Your task to perform on an android device: Add "macbook pro" to the cart on bestbuy, then select checkout. Image 0: 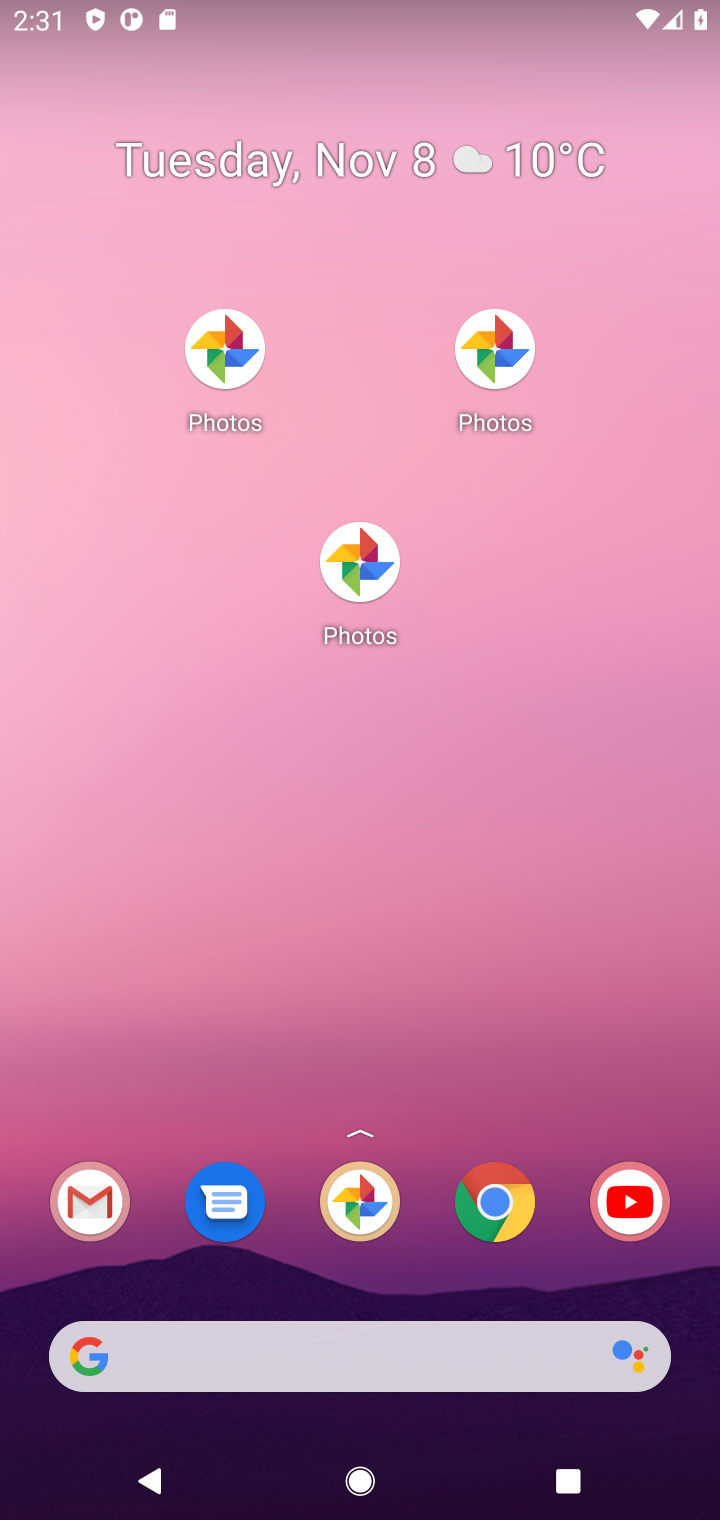
Step 0: drag from (373, 1271) to (447, 387)
Your task to perform on an android device: Add "macbook pro" to the cart on bestbuy, then select checkout. Image 1: 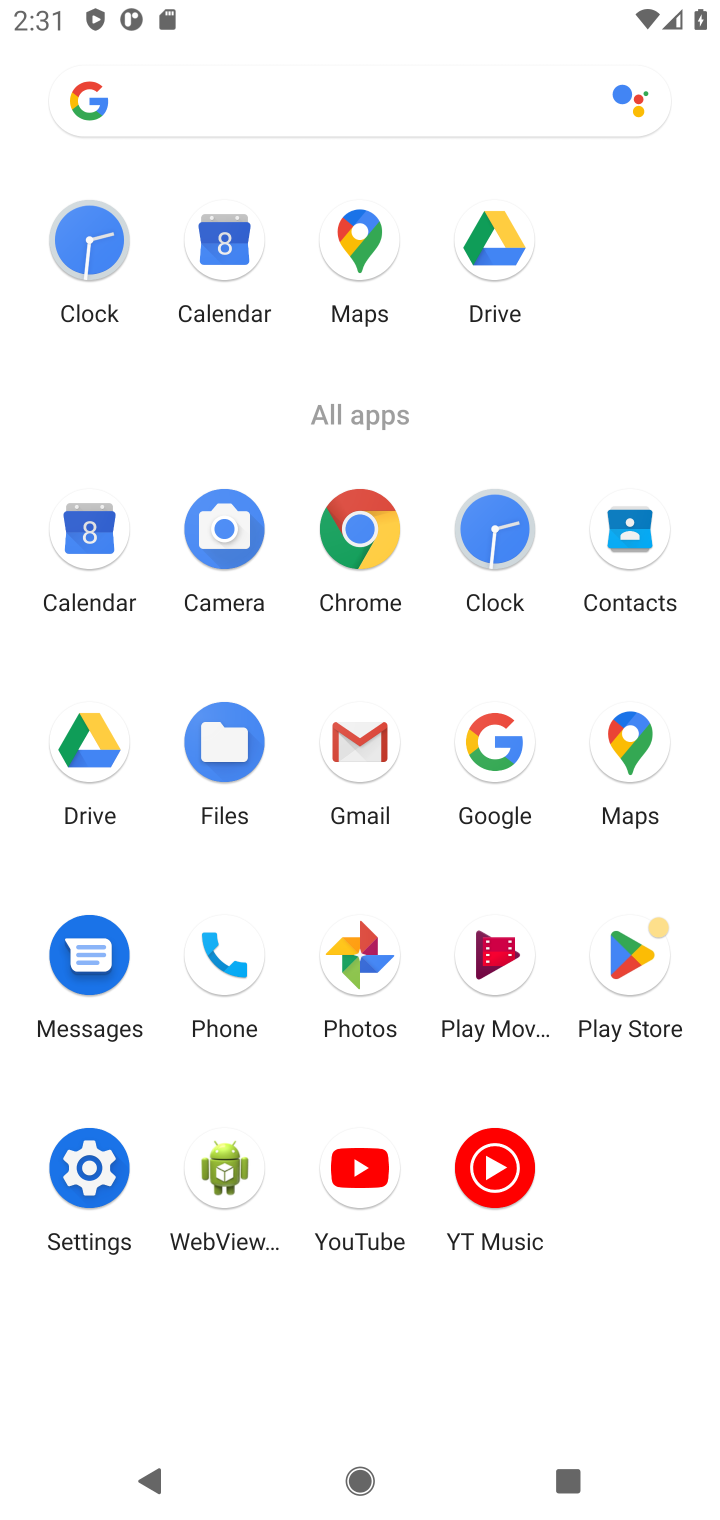
Step 1: click (501, 770)
Your task to perform on an android device: Add "macbook pro" to the cart on bestbuy, then select checkout. Image 2: 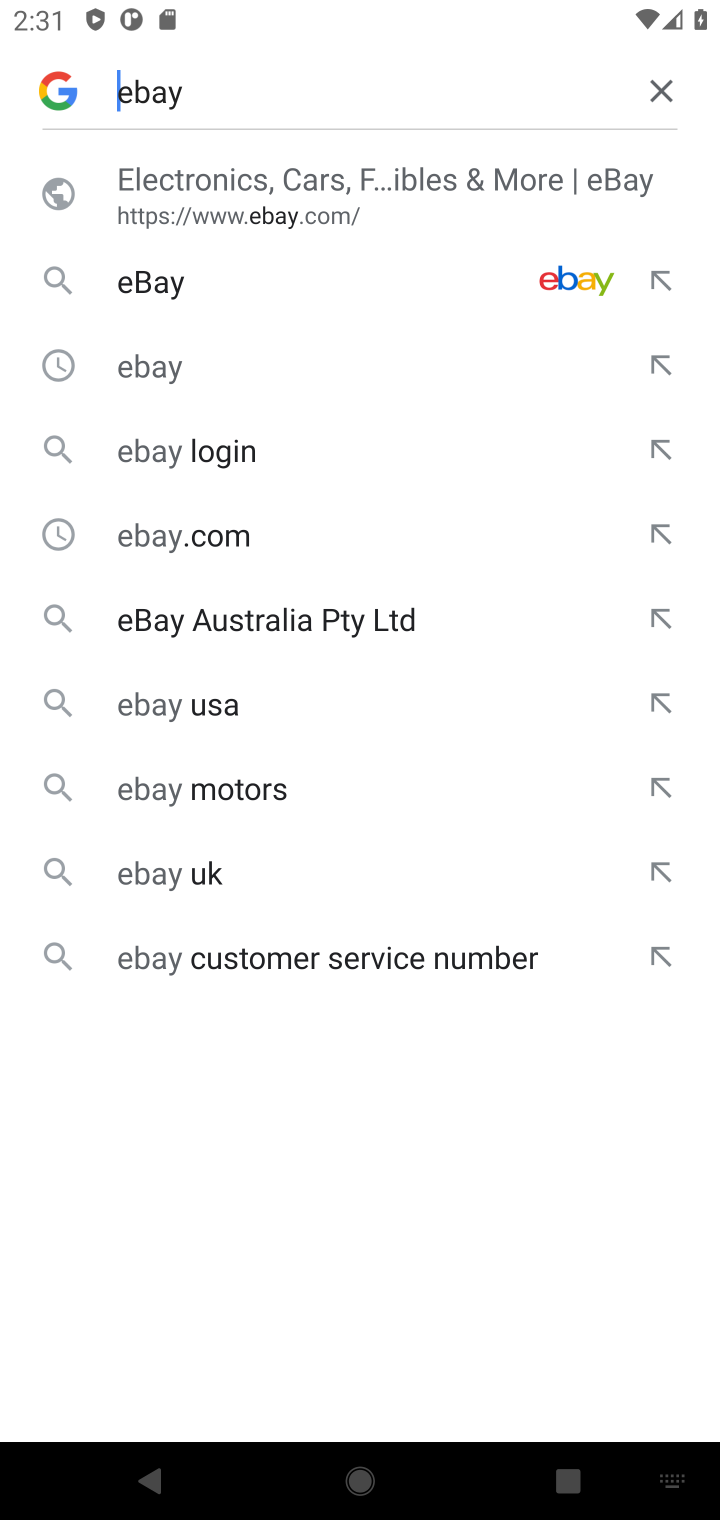
Step 2: click (663, 89)
Your task to perform on an android device: Add "macbook pro" to the cart on bestbuy, then select checkout. Image 3: 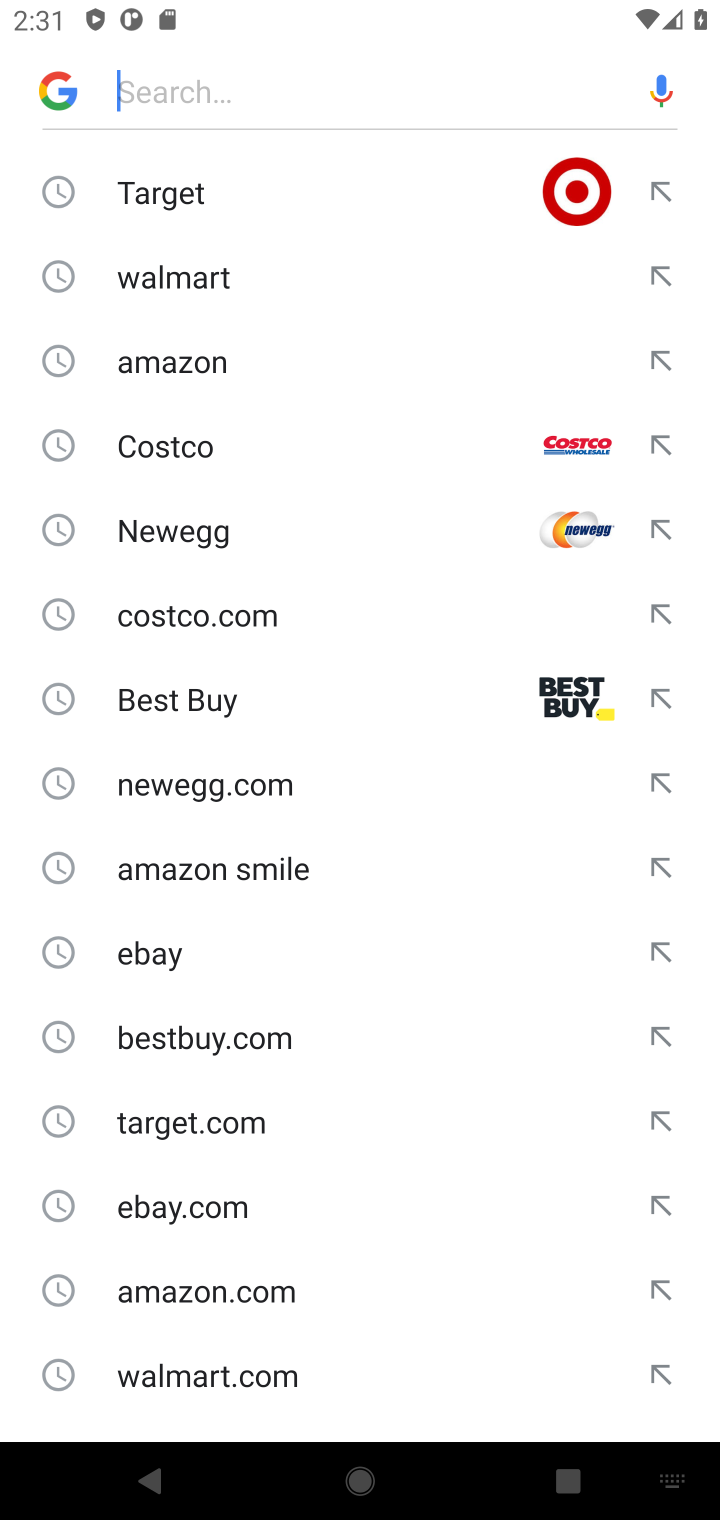
Step 3: type "bestbuy"
Your task to perform on an android device: Add "macbook pro" to the cart on bestbuy, then select checkout. Image 4: 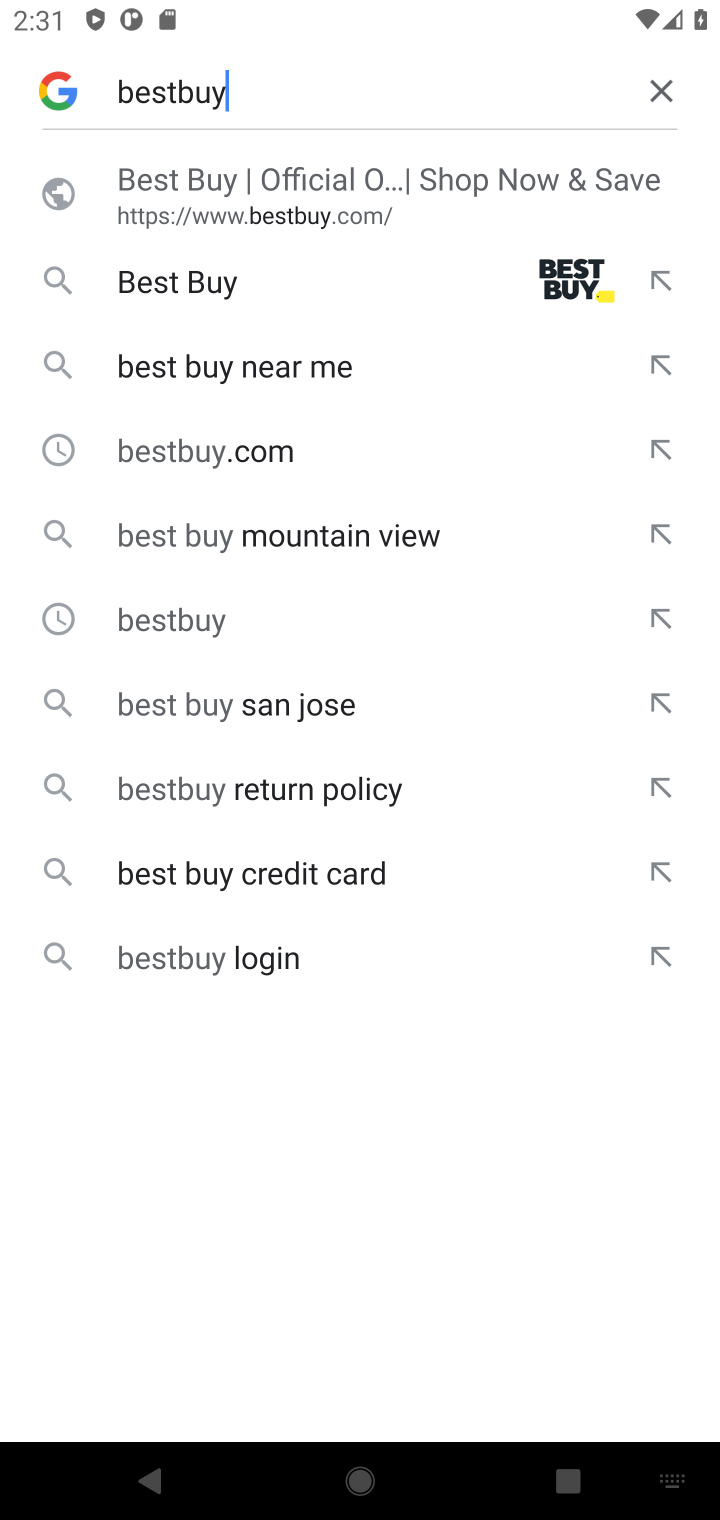
Step 4: click (261, 202)
Your task to perform on an android device: Add "macbook pro" to the cart on bestbuy, then select checkout. Image 5: 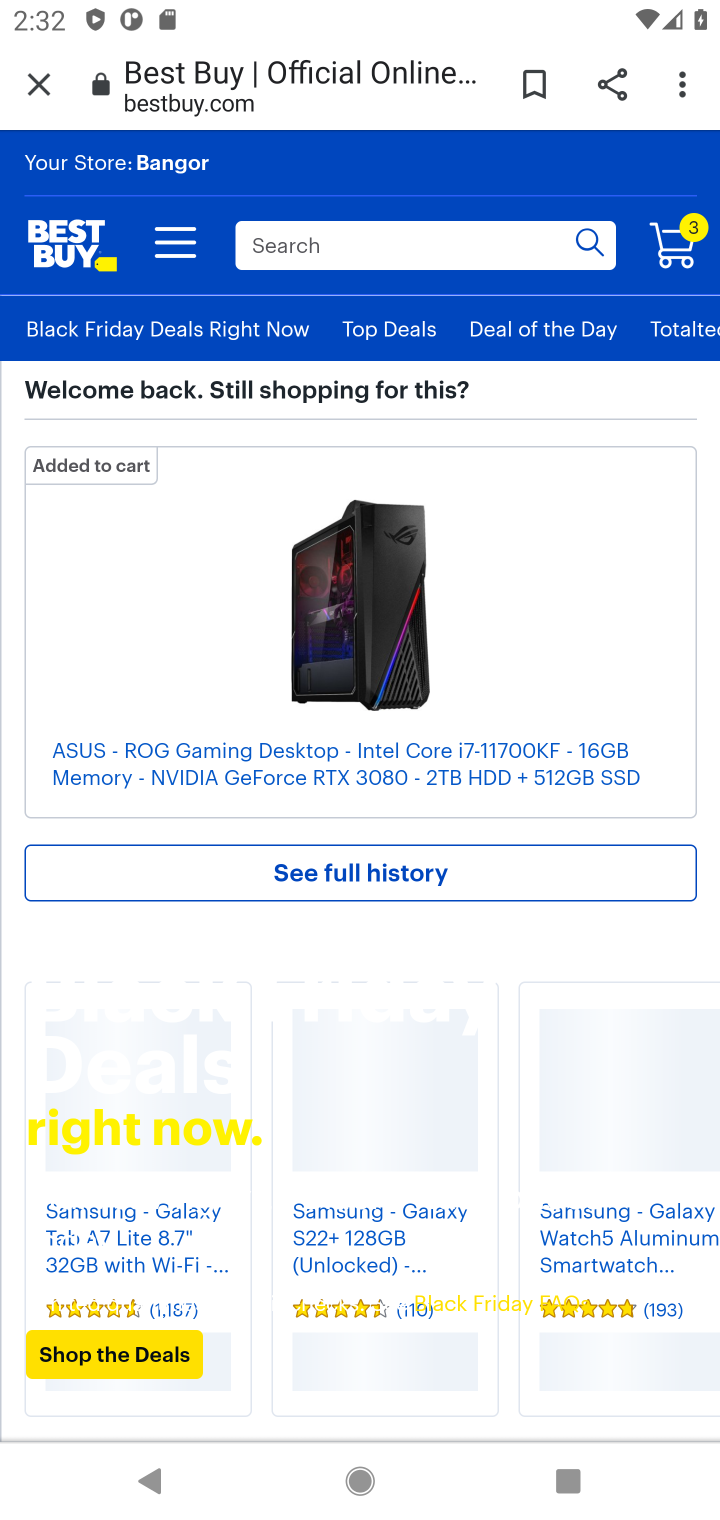
Step 5: click (384, 235)
Your task to perform on an android device: Add "macbook pro" to the cart on bestbuy, then select checkout. Image 6: 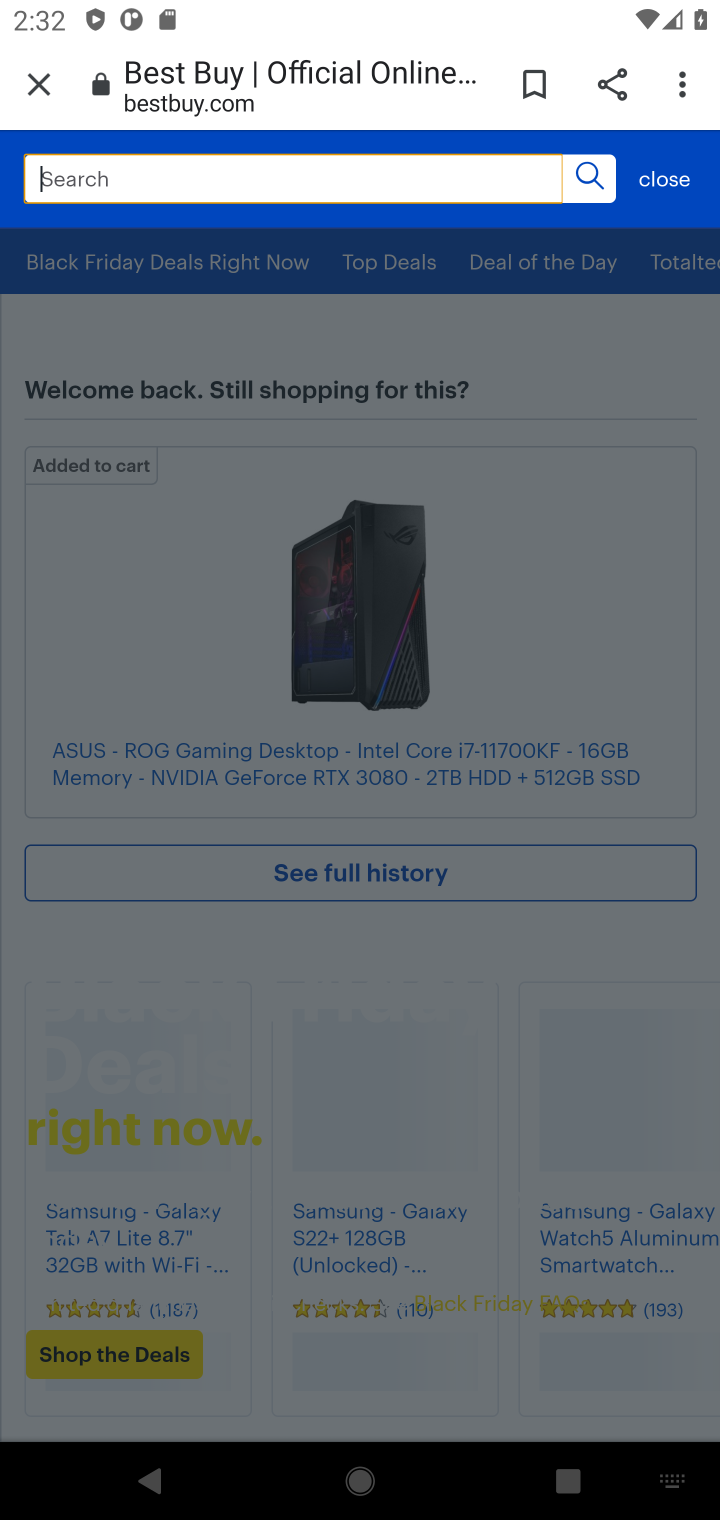
Step 6: type "macbook pro"
Your task to perform on an android device: Add "macbook pro" to the cart on bestbuy, then select checkout. Image 7: 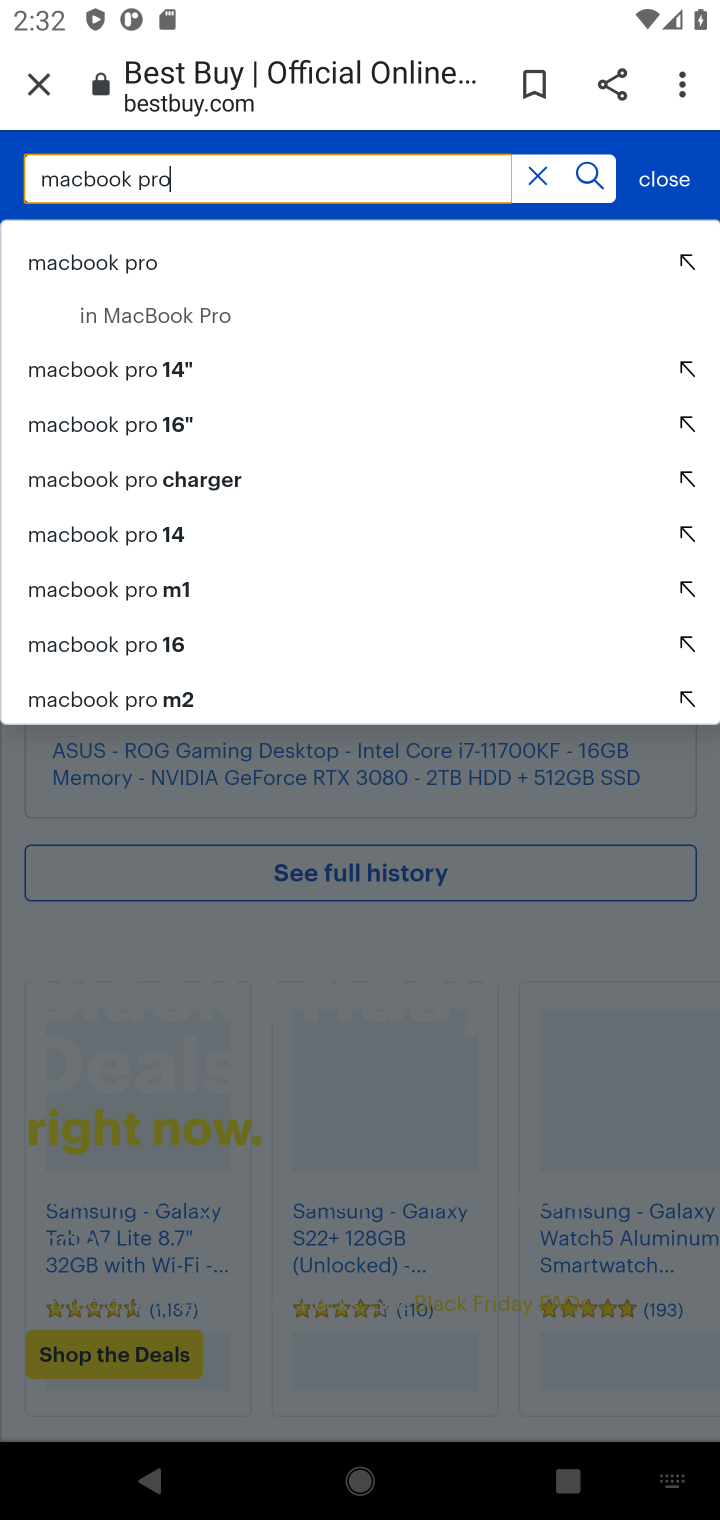
Step 7: click (236, 262)
Your task to perform on an android device: Add "macbook pro" to the cart on bestbuy, then select checkout. Image 8: 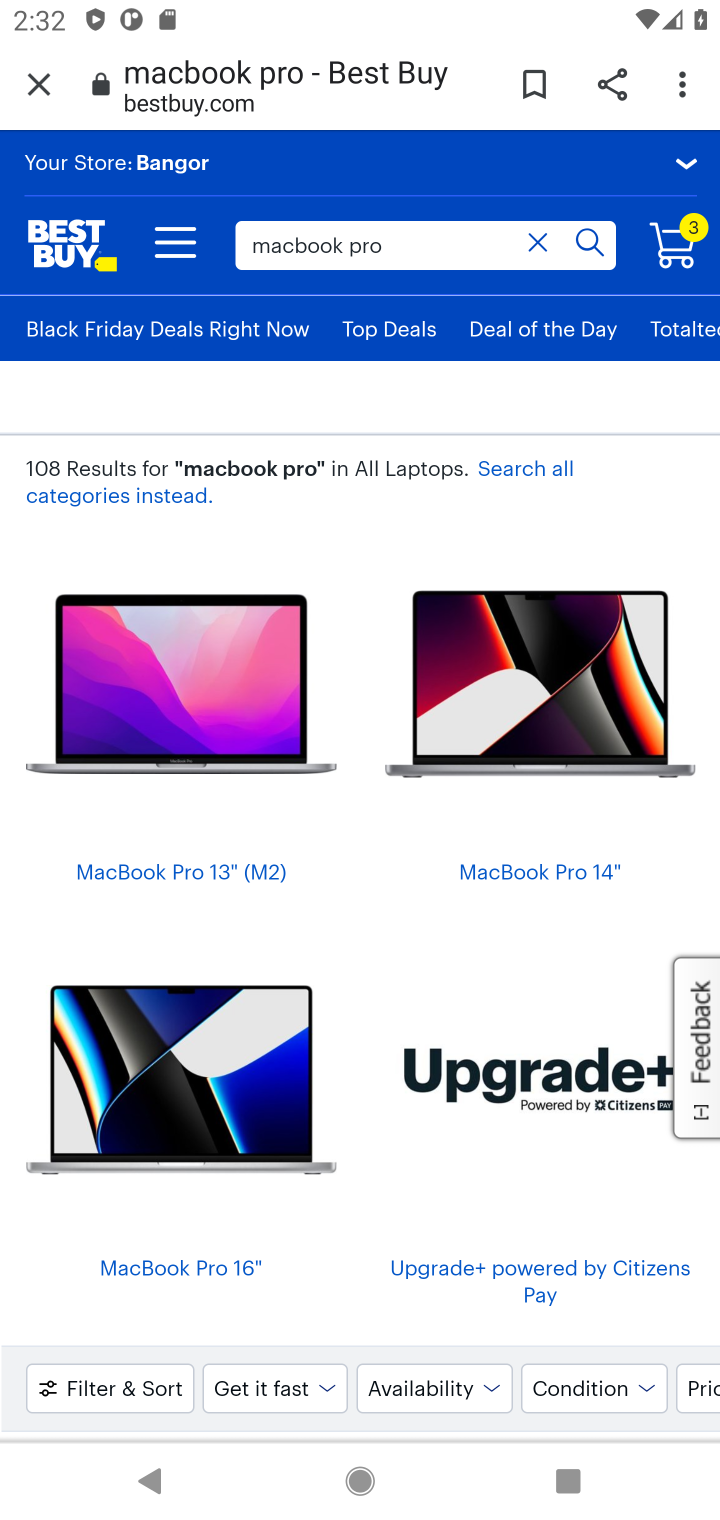
Step 8: click (210, 728)
Your task to perform on an android device: Add "macbook pro" to the cart on bestbuy, then select checkout. Image 9: 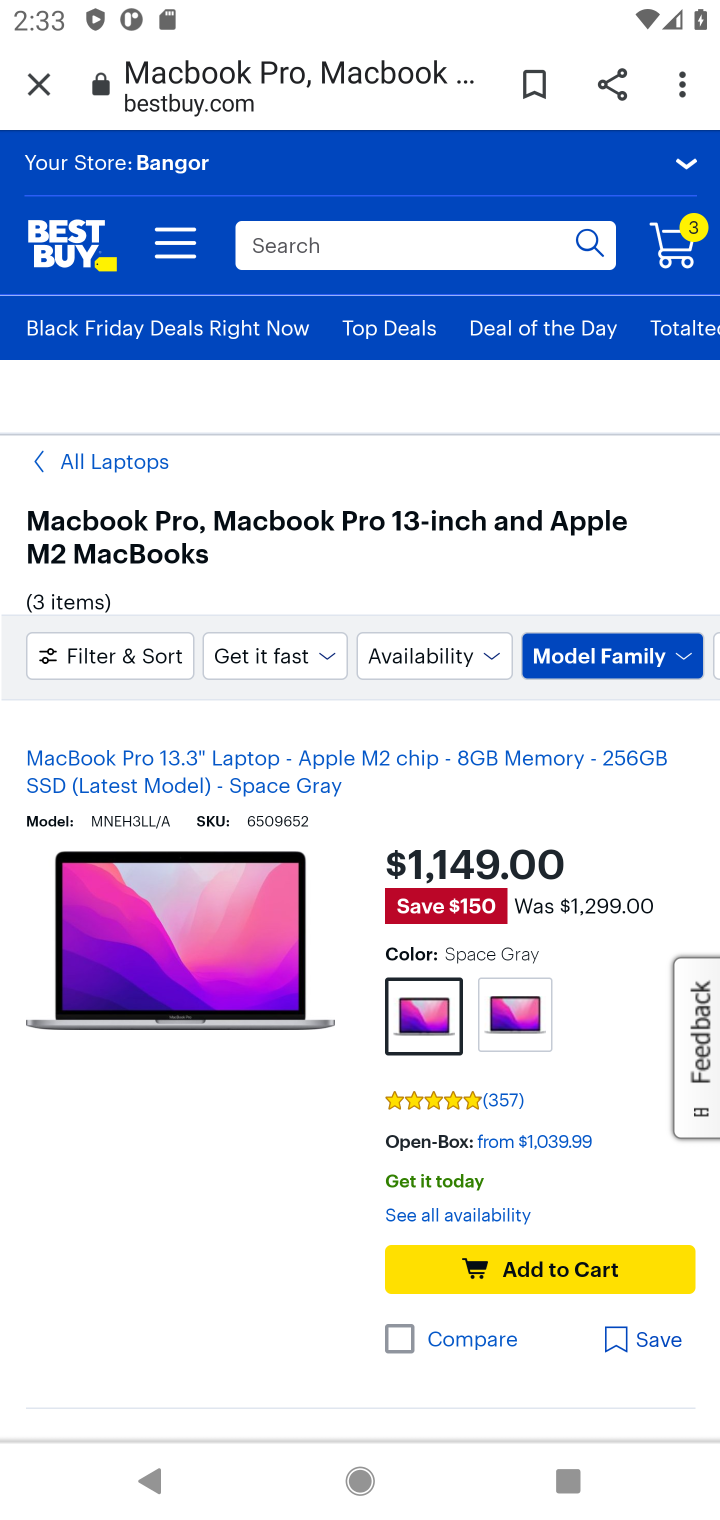
Step 9: click (504, 1276)
Your task to perform on an android device: Add "macbook pro" to the cart on bestbuy, then select checkout. Image 10: 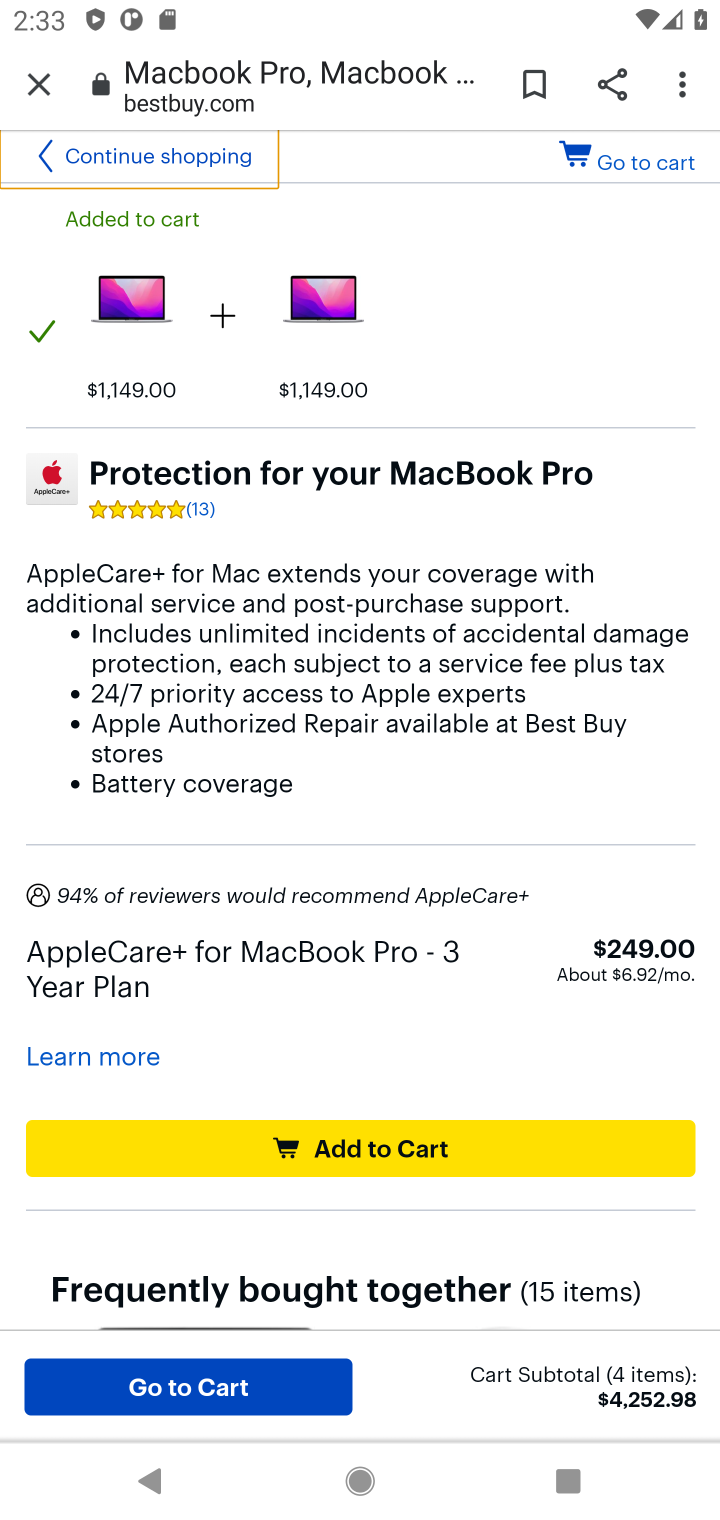
Step 10: click (163, 1372)
Your task to perform on an android device: Add "macbook pro" to the cart on bestbuy, then select checkout. Image 11: 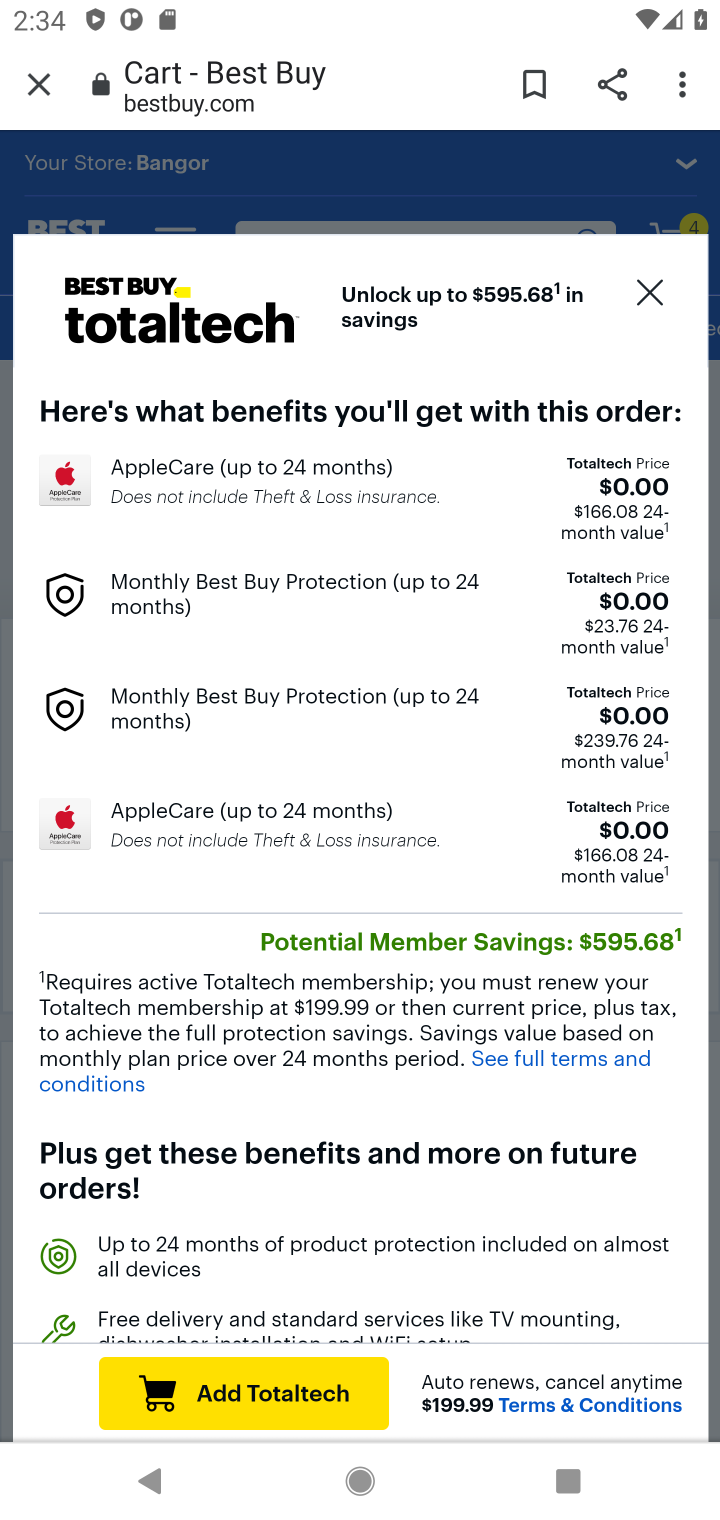
Step 11: click (643, 313)
Your task to perform on an android device: Add "macbook pro" to the cart on bestbuy, then select checkout. Image 12: 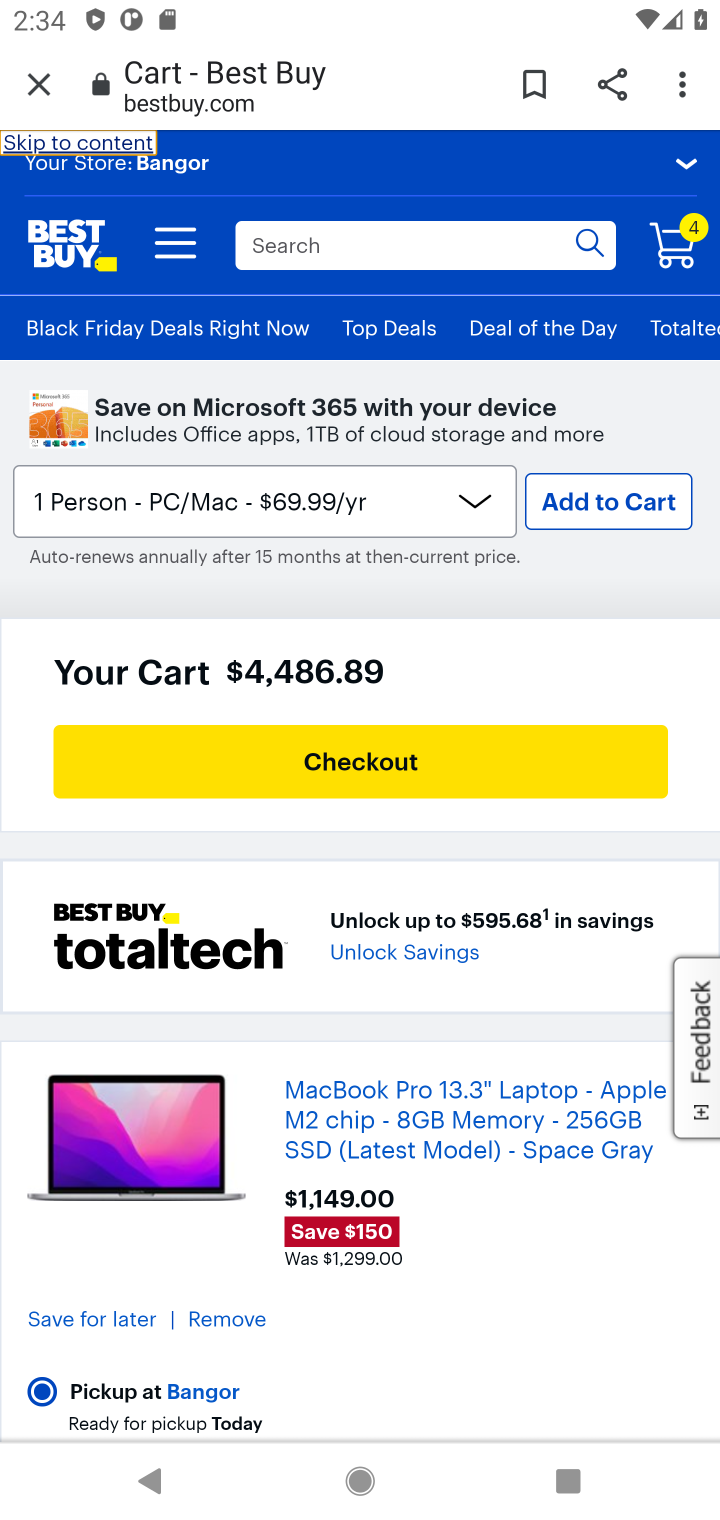
Step 12: click (395, 796)
Your task to perform on an android device: Add "macbook pro" to the cart on bestbuy, then select checkout. Image 13: 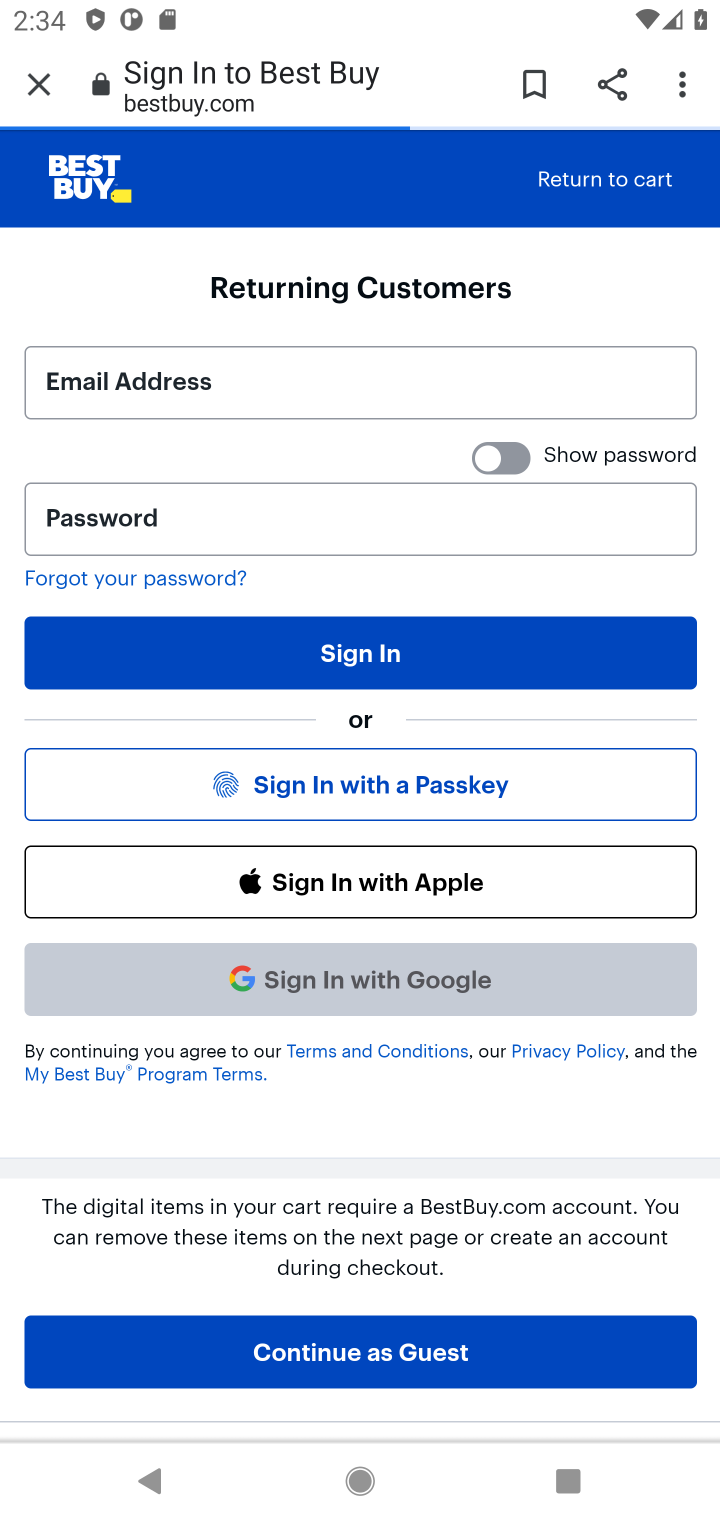
Step 13: task complete